Your task to perform on an android device: open a bookmark in the chrome app Image 0: 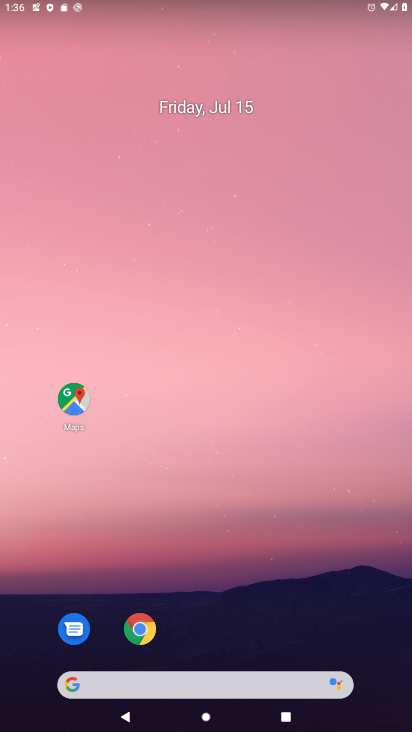
Step 0: drag from (308, 633) to (274, 133)
Your task to perform on an android device: open a bookmark in the chrome app Image 1: 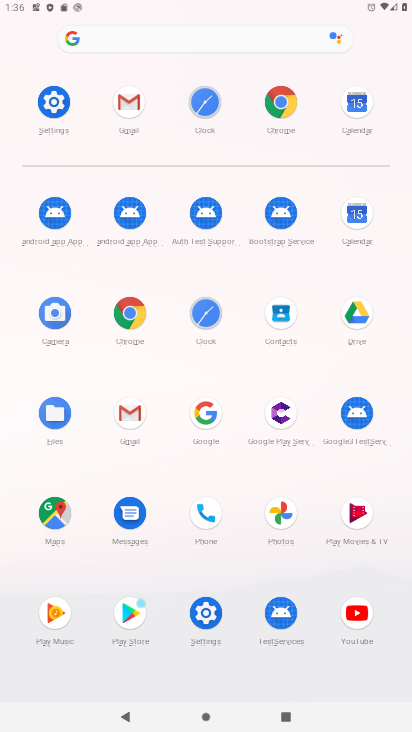
Step 1: click (124, 312)
Your task to perform on an android device: open a bookmark in the chrome app Image 2: 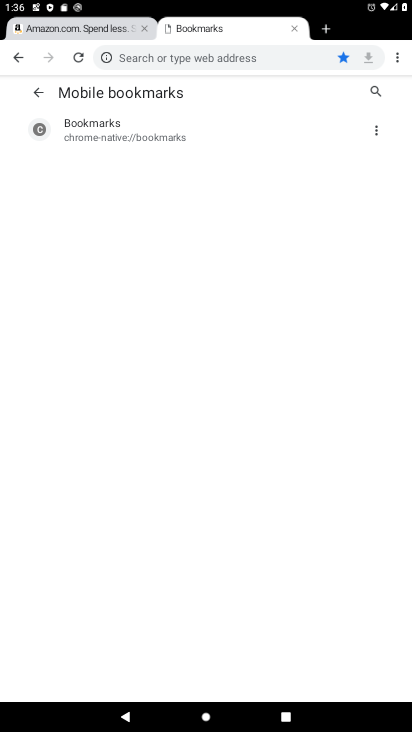
Step 2: click (239, 131)
Your task to perform on an android device: open a bookmark in the chrome app Image 3: 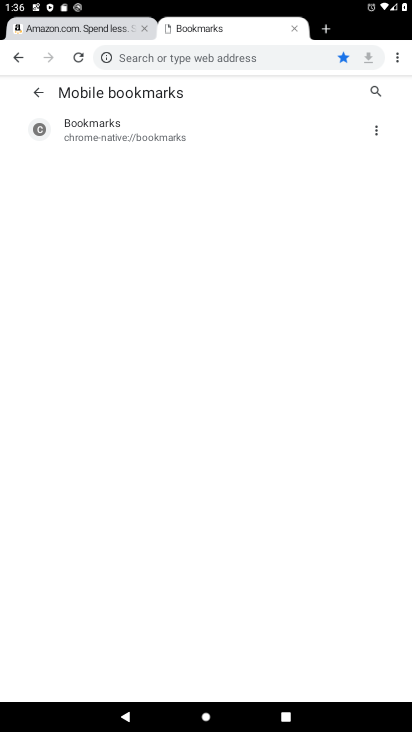
Step 3: task complete